Your task to perform on an android device: Open calendar and show me the fourth week of next month Image 0: 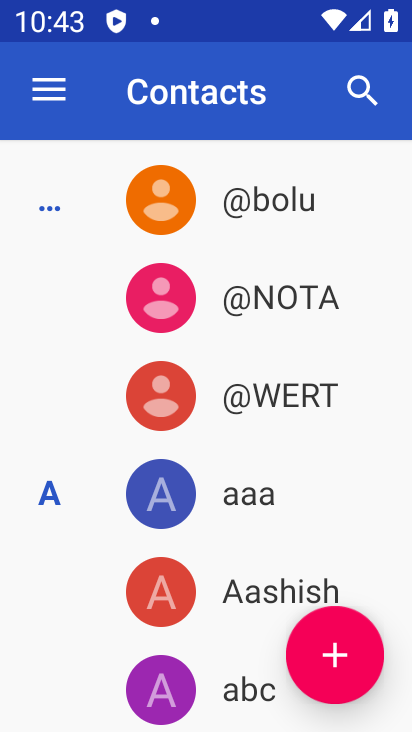
Step 0: press home button
Your task to perform on an android device: Open calendar and show me the fourth week of next month Image 1: 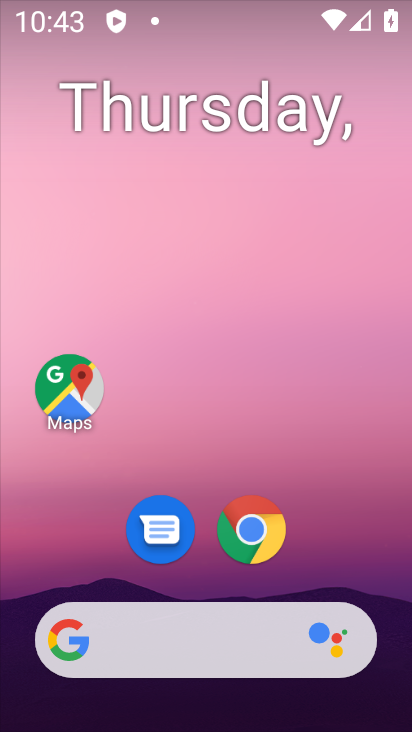
Step 1: drag from (319, 537) to (305, 86)
Your task to perform on an android device: Open calendar and show me the fourth week of next month Image 2: 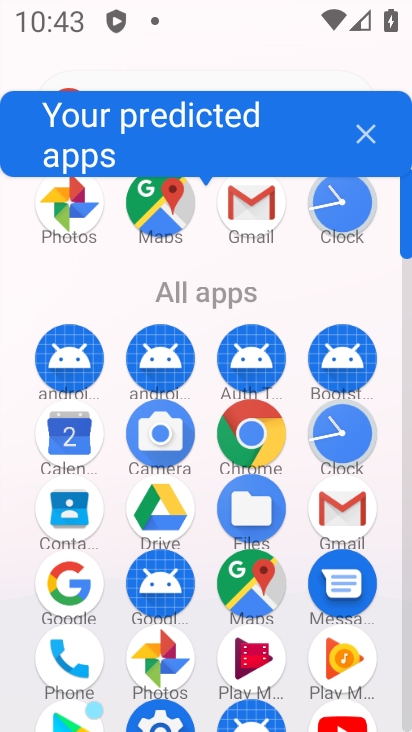
Step 2: click (88, 438)
Your task to perform on an android device: Open calendar and show me the fourth week of next month Image 3: 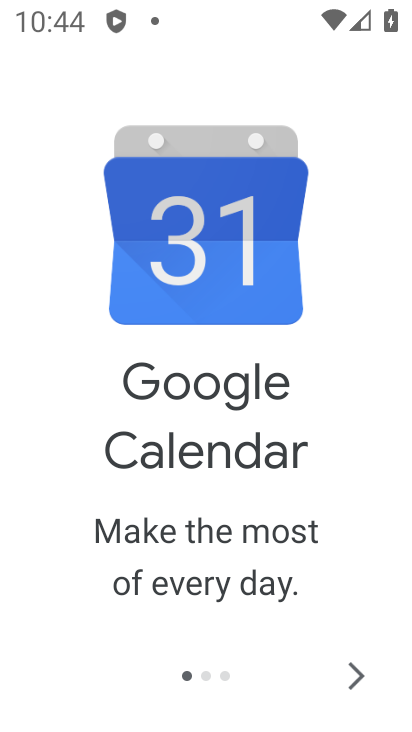
Step 3: click (352, 691)
Your task to perform on an android device: Open calendar and show me the fourth week of next month Image 4: 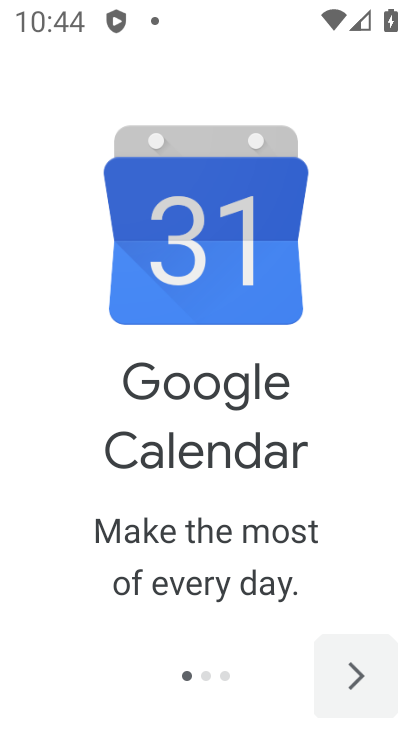
Step 4: click (352, 691)
Your task to perform on an android device: Open calendar and show me the fourth week of next month Image 5: 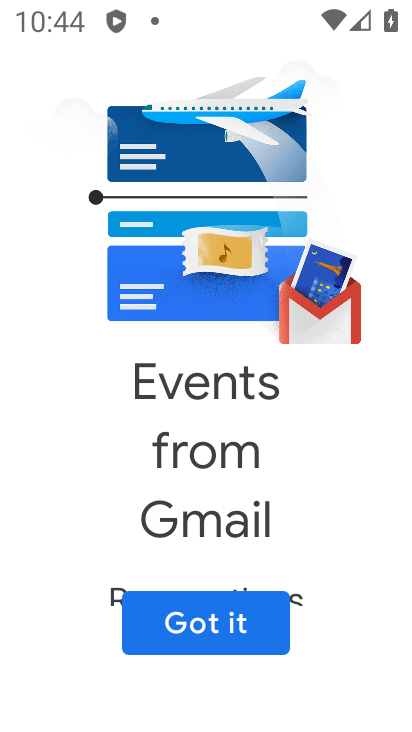
Step 5: click (271, 628)
Your task to perform on an android device: Open calendar and show me the fourth week of next month Image 6: 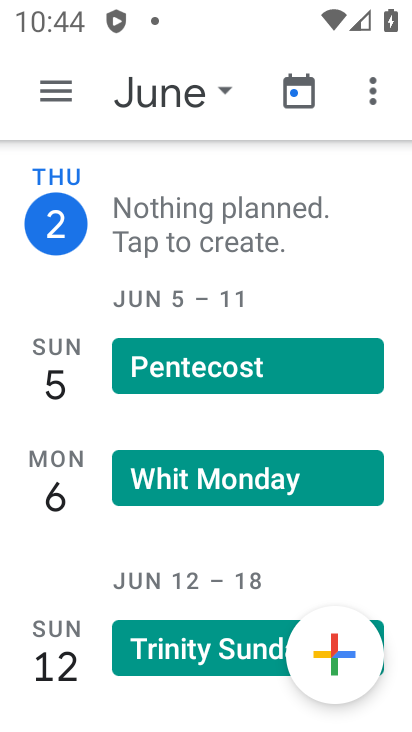
Step 6: click (142, 93)
Your task to perform on an android device: Open calendar and show me the fourth week of next month Image 7: 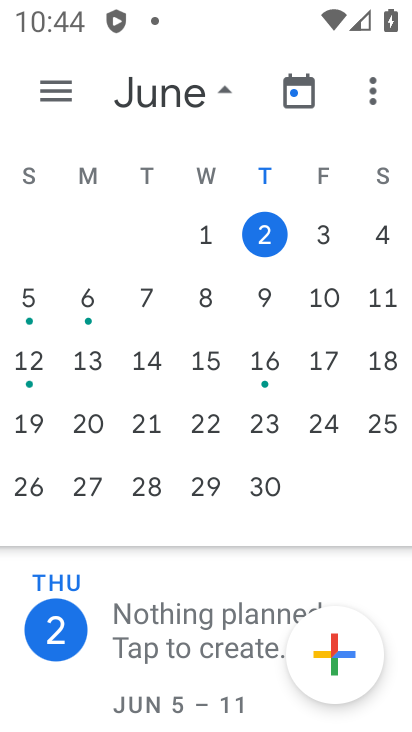
Step 7: drag from (389, 350) to (4, 275)
Your task to perform on an android device: Open calendar and show me the fourth week of next month Image 8: 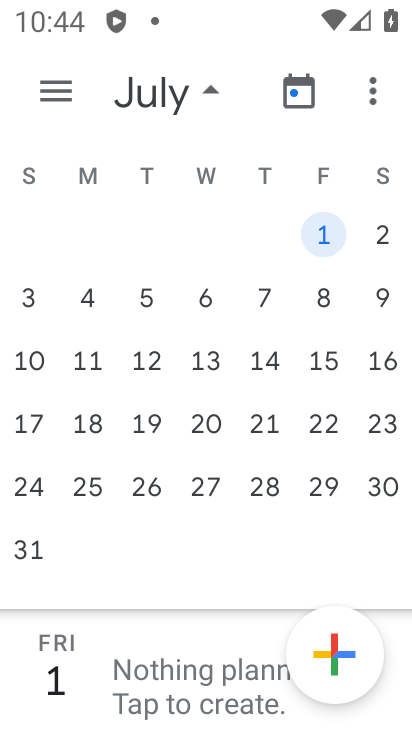
Step 8: click (64, 101)
Your task to perform on an android device: Open calendar and show me the fourth week of next month Image 9: 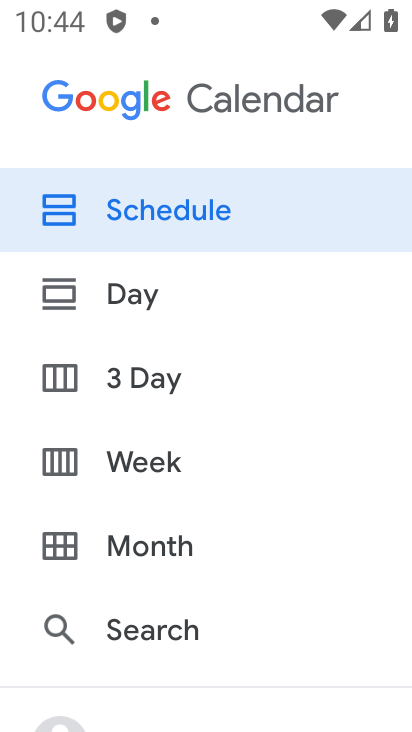
Step 9: click (224, 453)
Your task to perform on an android device: Open calendar and show me the fourth week of next month Image 10: 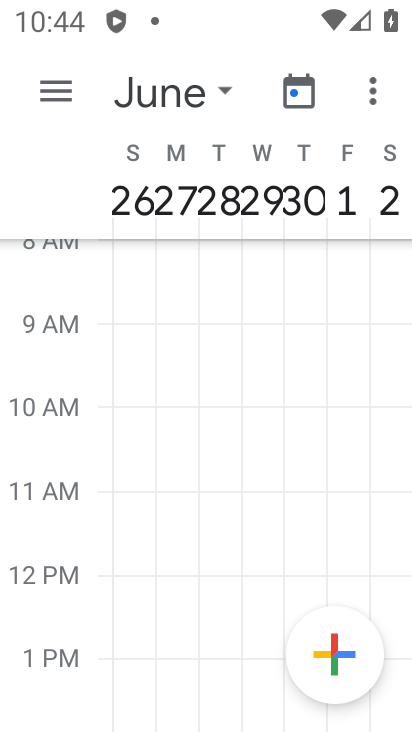
Step 10: task complete